Your task to perform on an android device: add a label to a message in the gmail app Image 0: 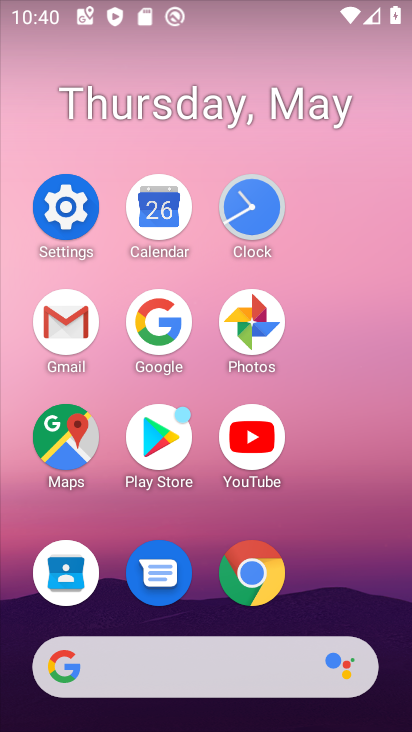
Step 0: click (57, 302)
Your task to perform on an android device: add a label to a message in the gmail app Image 1: 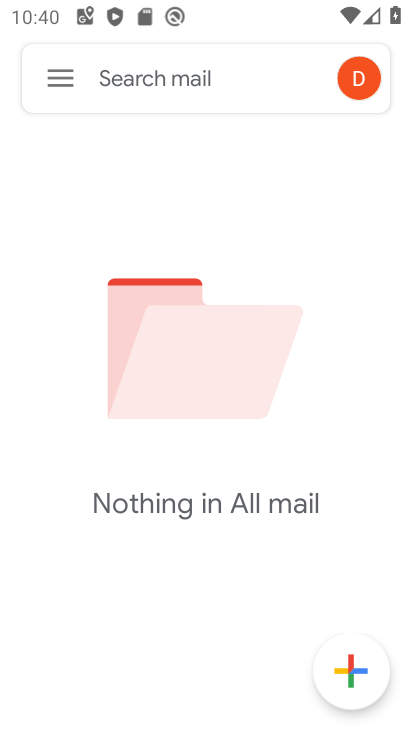
Step 1: task complete